Your task to perform on an android device: change the clock style Image 0: 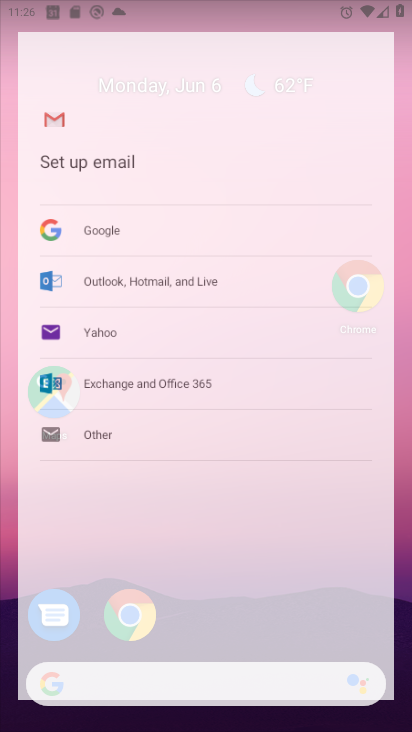
Step 0: drag from (252, 703) to (163, 223)
Your task to perform on an android device: change the clock style Image 1: 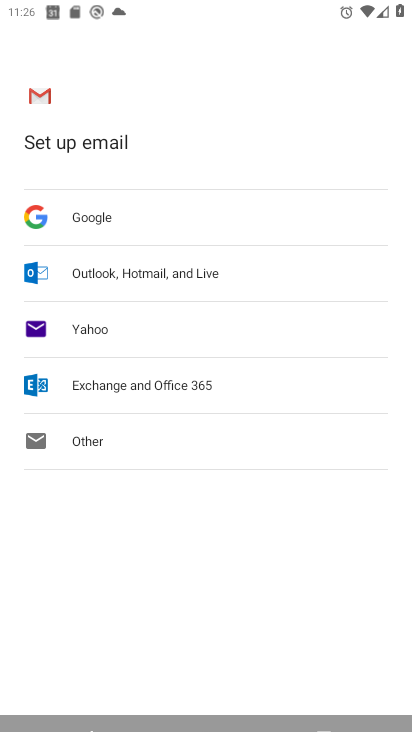
Step 1: press back button
Your task to perform on an android device: change the clock style Image 2: 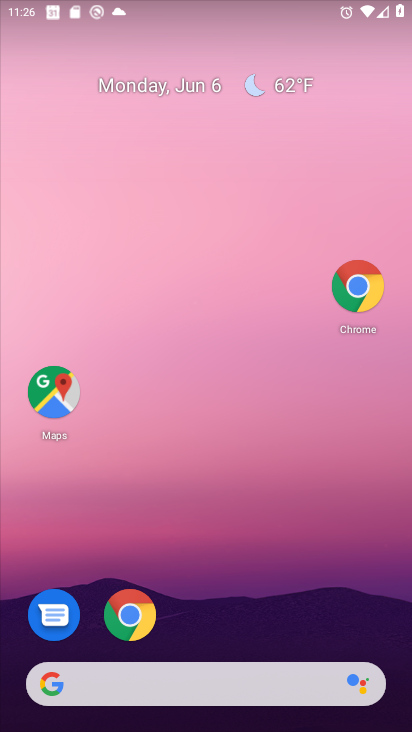
Step 2: press home button
Your task to perform on an android device: change the clock style Image 3: 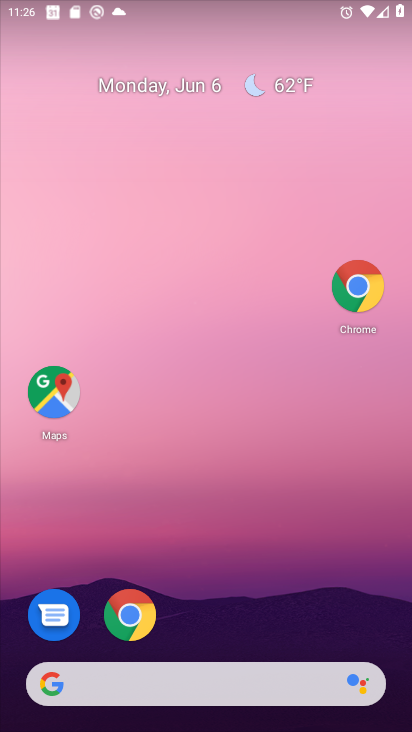
Step 3: drag from (247, 661) to (188, 310)
Your task to perform on an android device: change the clock style Image 4: 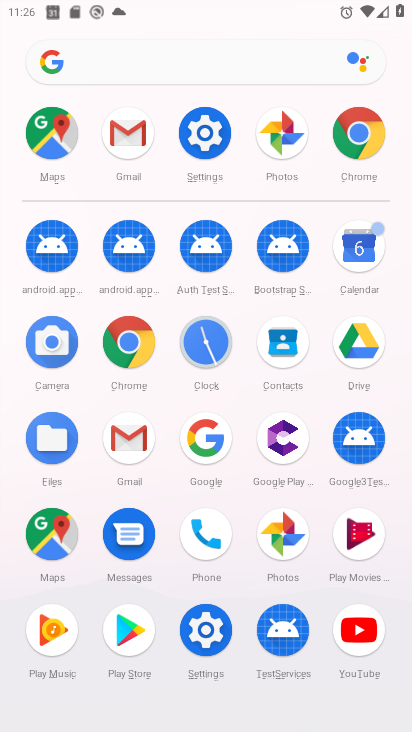
Step 4: click (201, 345)
Your task to perform on an android device: change the clock style Image 5: 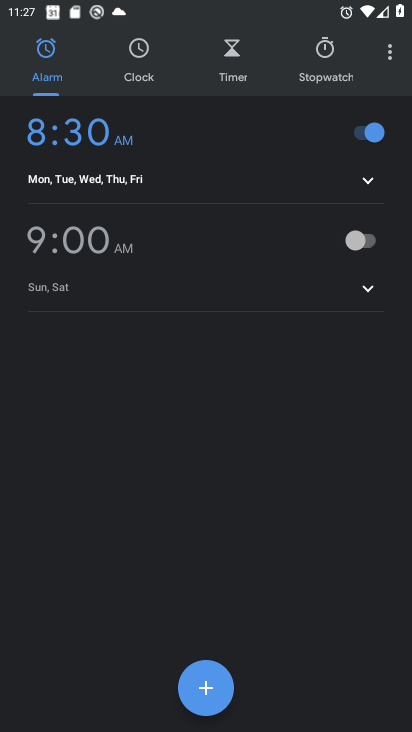
Step 5: click (379, 60)
Your task to perform on an android device: change the clock style Image 6: 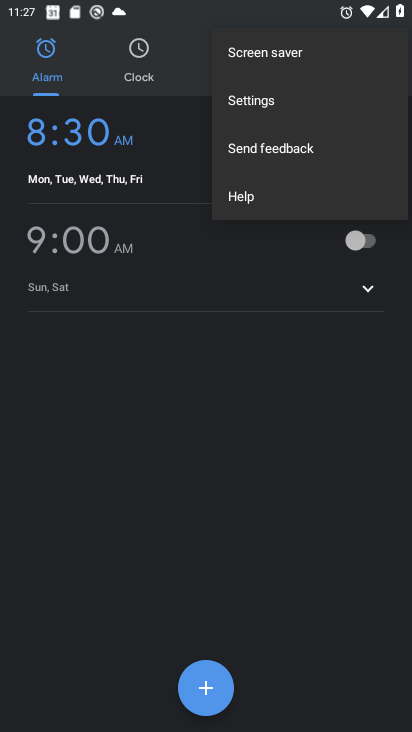
Step 6: click (251, 98)
Your task to perform on an android device: change the clock style Image 7: 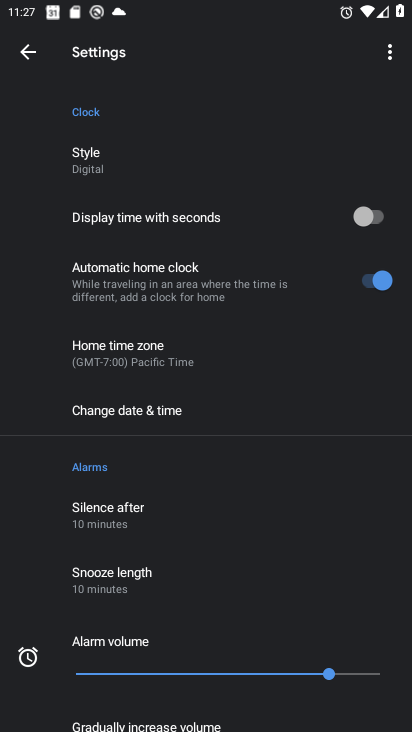
Step 7: click (378, 214)
Your task to perform on an android device: change the clock style Image 8: 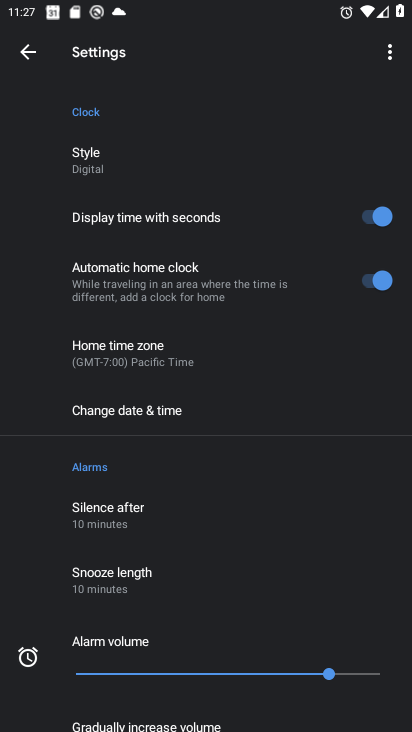
Step 8: task complete